Your task to perform on an android device: Show me recent news Image 0: 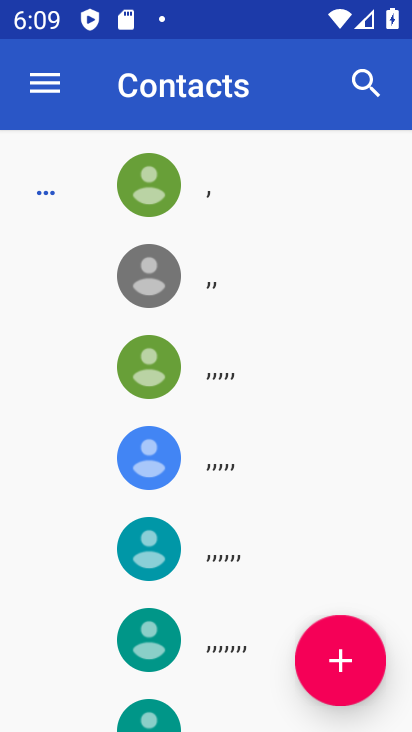
Step 0: press home button
Your task to perform on an android device: Show me recent news Image 1: 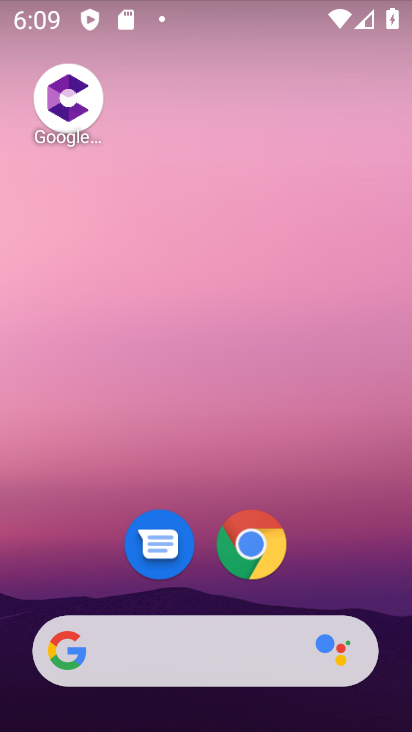
Step 1: task complete